Your task to perform on an android device: Go to notification settings Image 0: 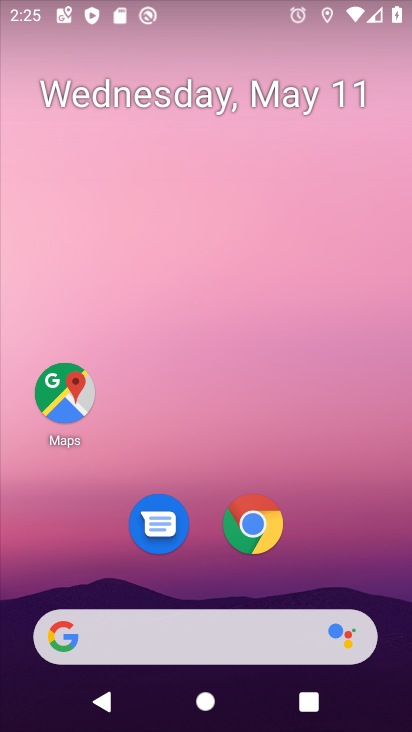
Step 0: drag from (335, 513) to (328, 44)
Your task to perform on an android device: Go to notification settings Image 1: 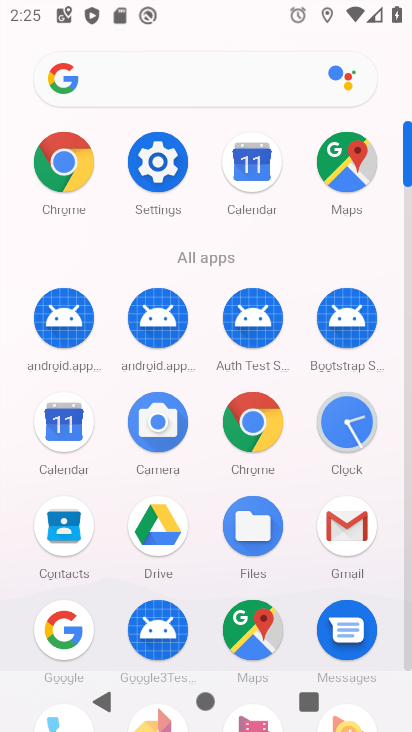
Step 1: click (157, 164)
Your task to perform on an android device: Go to notification settings Image 2: 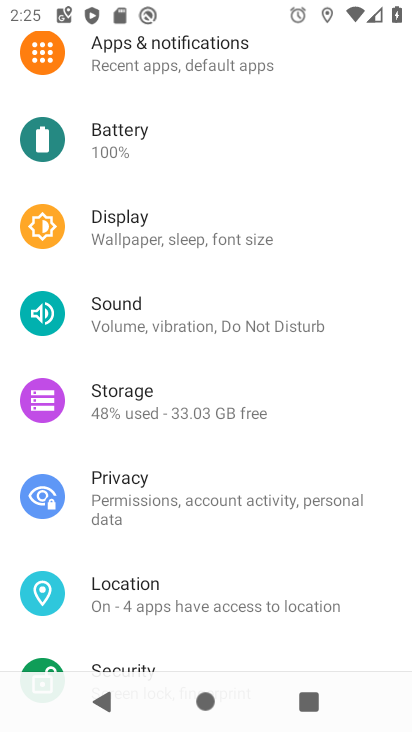
Step 2: click (231, 58)
Your task to perform on an android device: Go to notification settings Image 3: 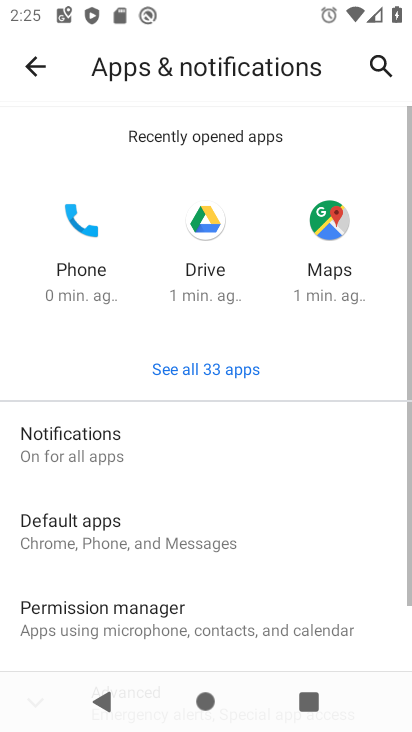
Step 3: click (98, 433)
Your task to perform on an android device: Go to notification settings Image 4: 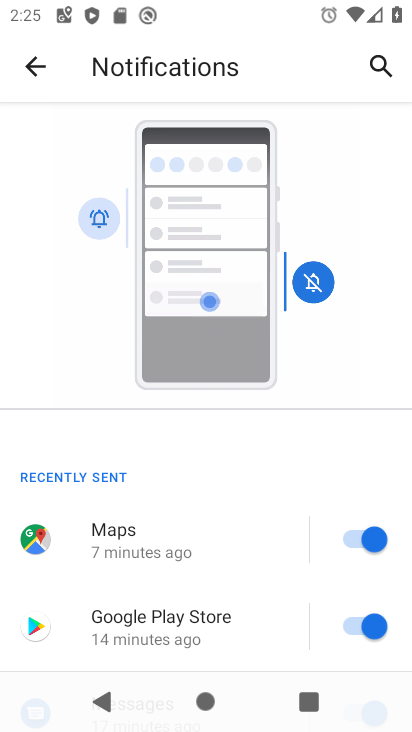
Step 4: task complete